Your task to perform on an android device: Open settings Image 0: 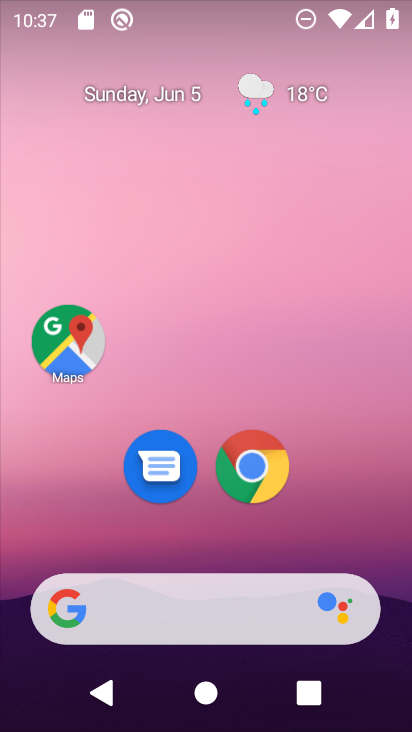
Step 0: drag from (370, 515) to (277, 37)
Your task to perform on an android device: Open settings Image 1: 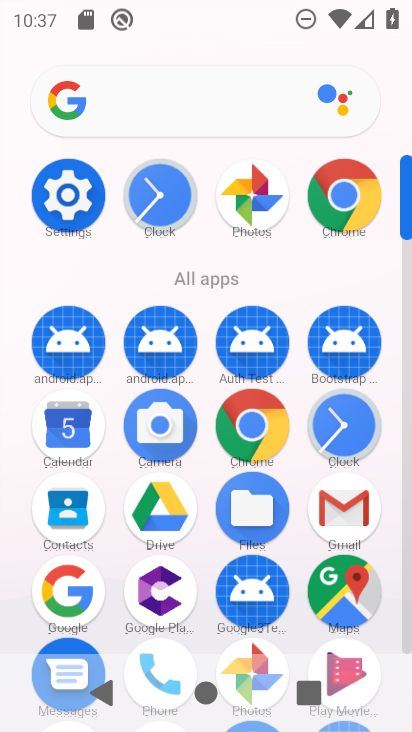
Step 1: click (66, 191)
Your task to perform on an android device: Open settings Image 2: 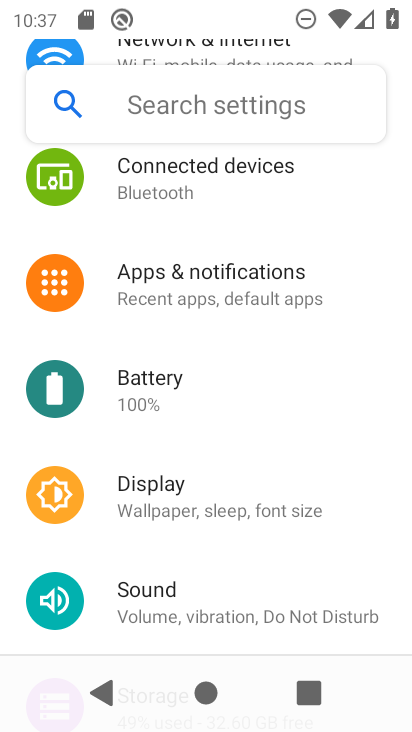
Step 2: task complete